Your task to perform on an android device: Open calendar and show me the second week of next month Image 0: 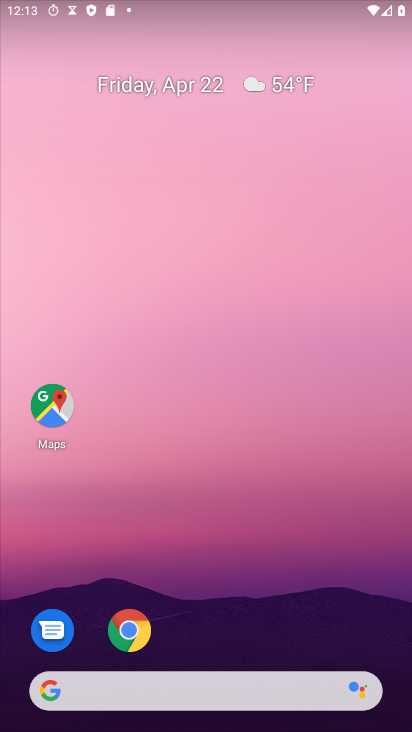
Step 0: drag from (209, 658) to (253, 216)
Your task to perform on an android device: Open calendar and show me the second week of next month Image 1: 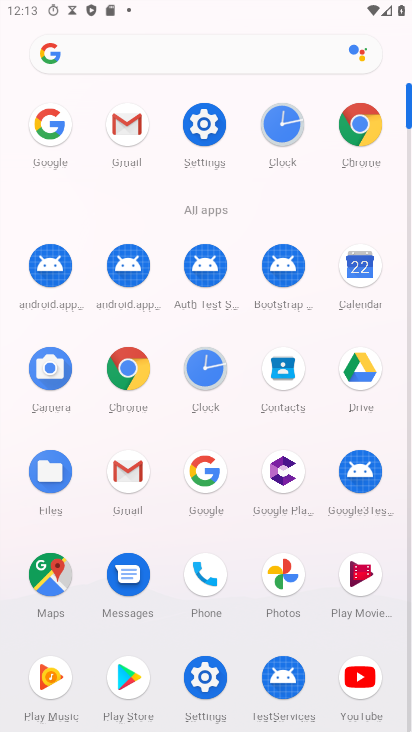
Step 1: click (369, 263)
Your task to perform on an android device: Open calendar and show me the second week of next month Image 2: 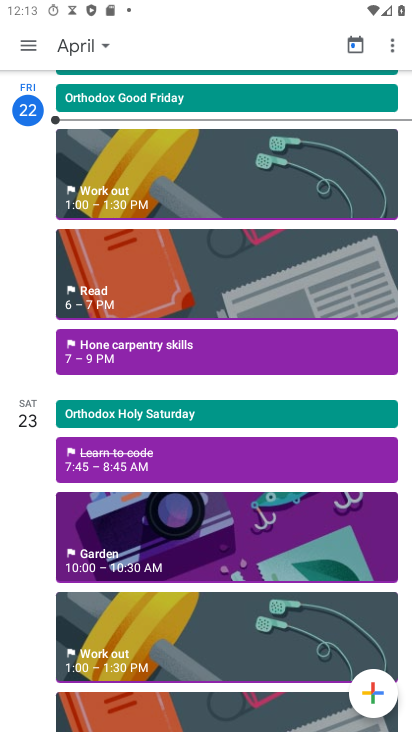
Step 2: click (93, 36)
Your task to perform on an android device: Open calendar and show me the second week of next month Image 3: 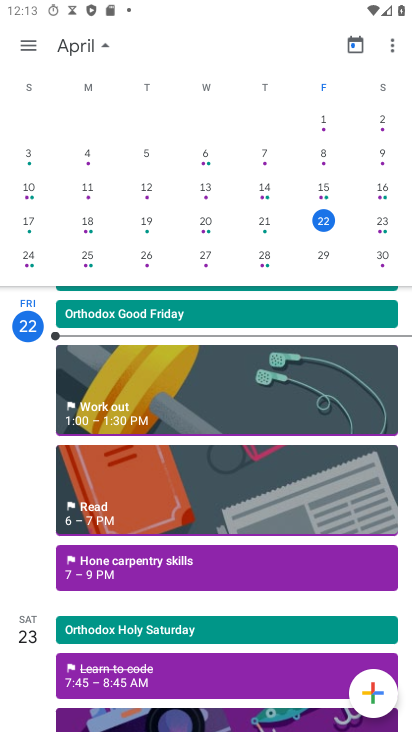
Step 3: drag from (360, 195) to (8, 188)
Your task to perform on an android device: Open calendar and show me the second week of next month Image 4: 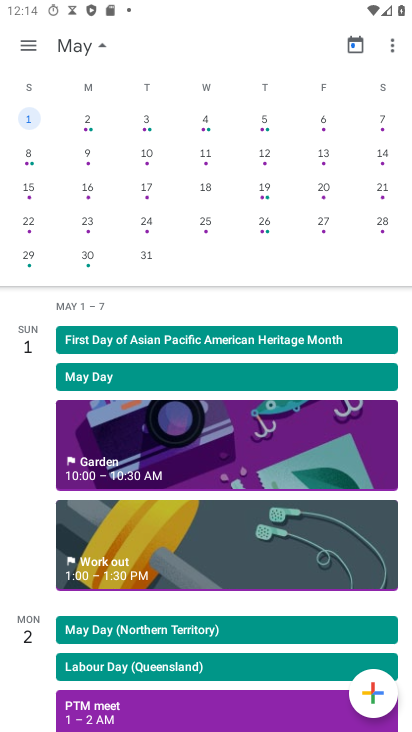
Step 4: drag from (375, 168) to (0, 164)
Your task to perform on an android device: Open calendar and show me the second week of next month Image 5: 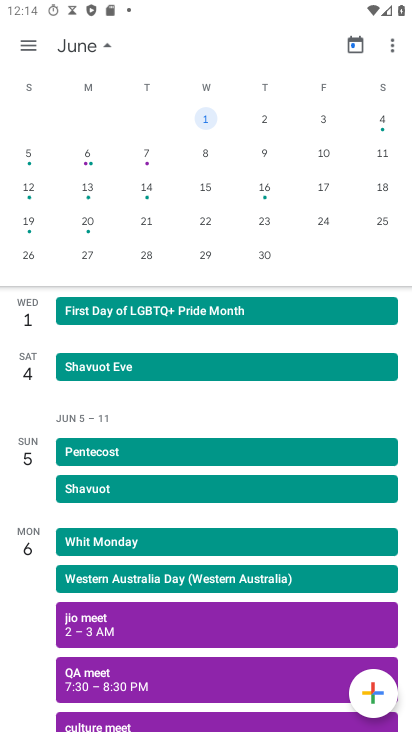
Step 5: drag from (226, 173) to (379, 171)
Your task to perform on an android device: Open calendar and show me the second week of next month Image 6: 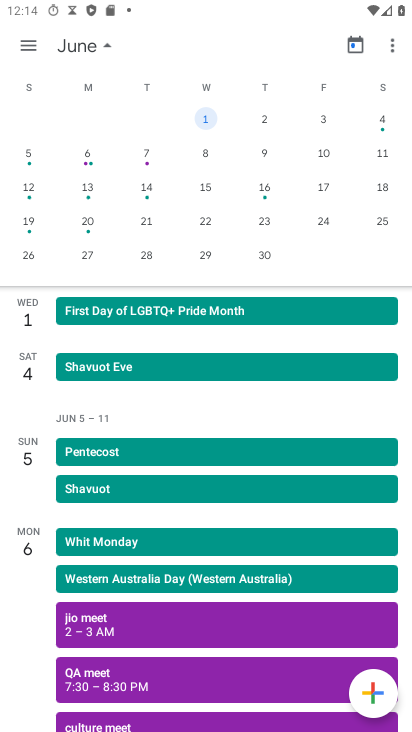
Step 6: drag from (20, 113) to (406, 81)
Your task to perform on an android device: Open calendar and show me the second week of next month Image 7: 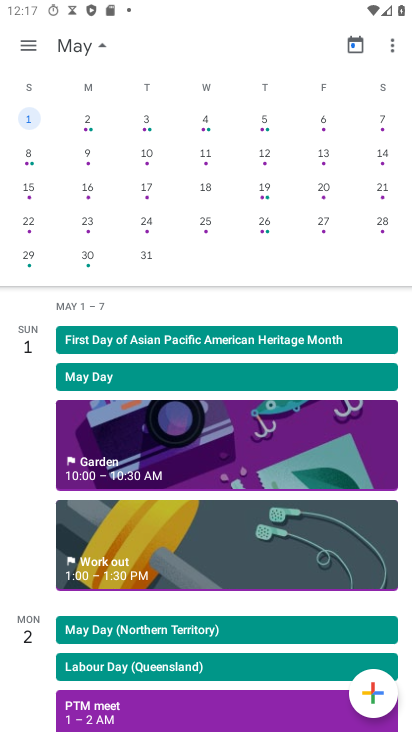
Step 7: click (32, 152)
Your task to perform on an android device: Open calendar and show me the second week of next month Image 8: 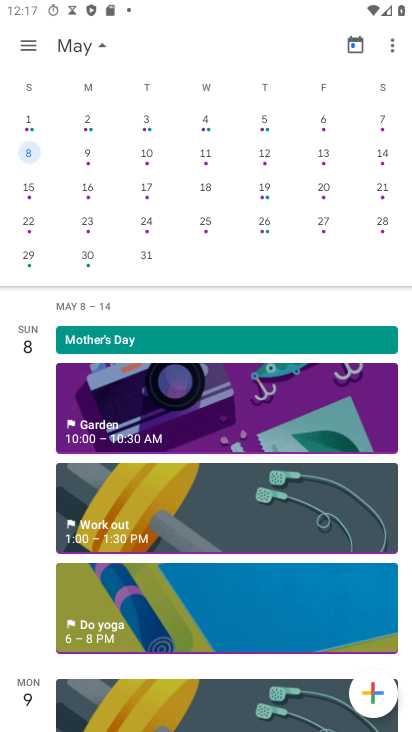
Step 8: task complete